Your task to perform on an android device: Set the phone to "Do not disturb". Image 0: 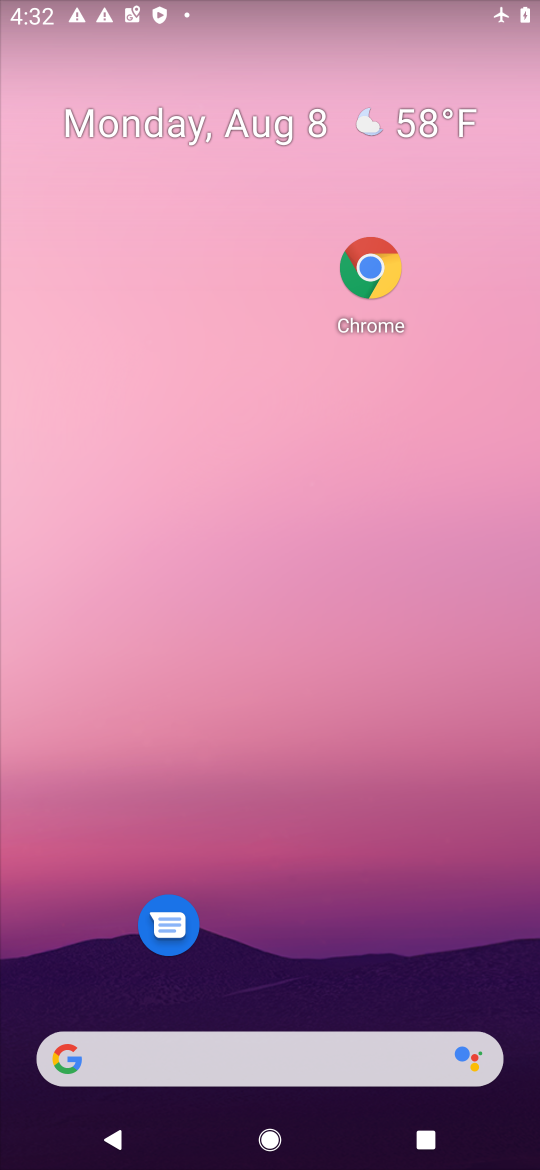
Step 0: drag from (260, 614) to (214, 109)
Your task to perform on an android device: Set the phone to "Do not disturb". Image 1: 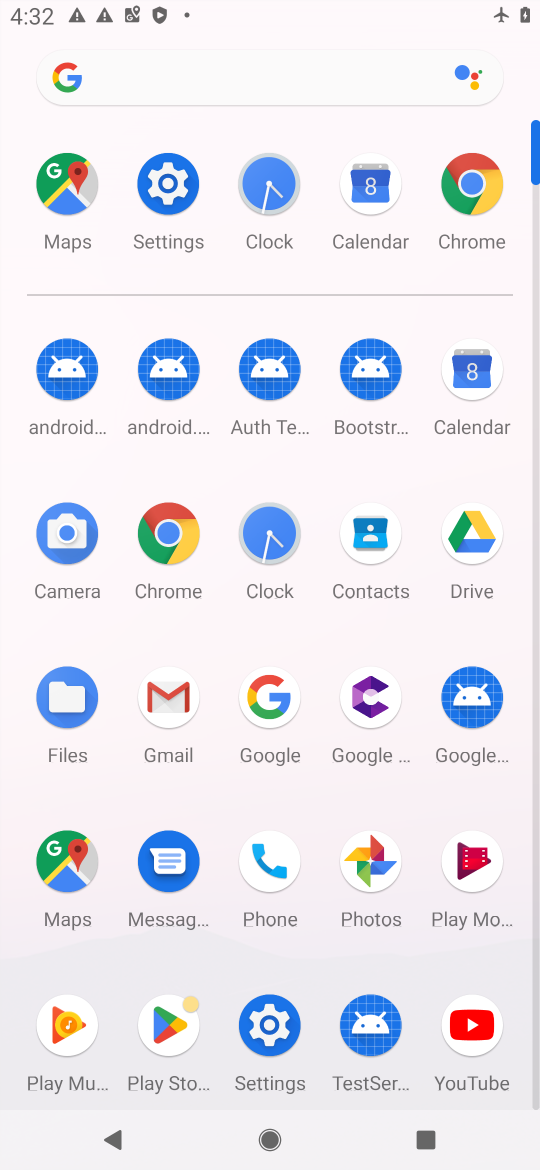
Step 1: click (177, 177)
Your task to perform on an android device: Set the phone to "Do not disturb". Image 2: 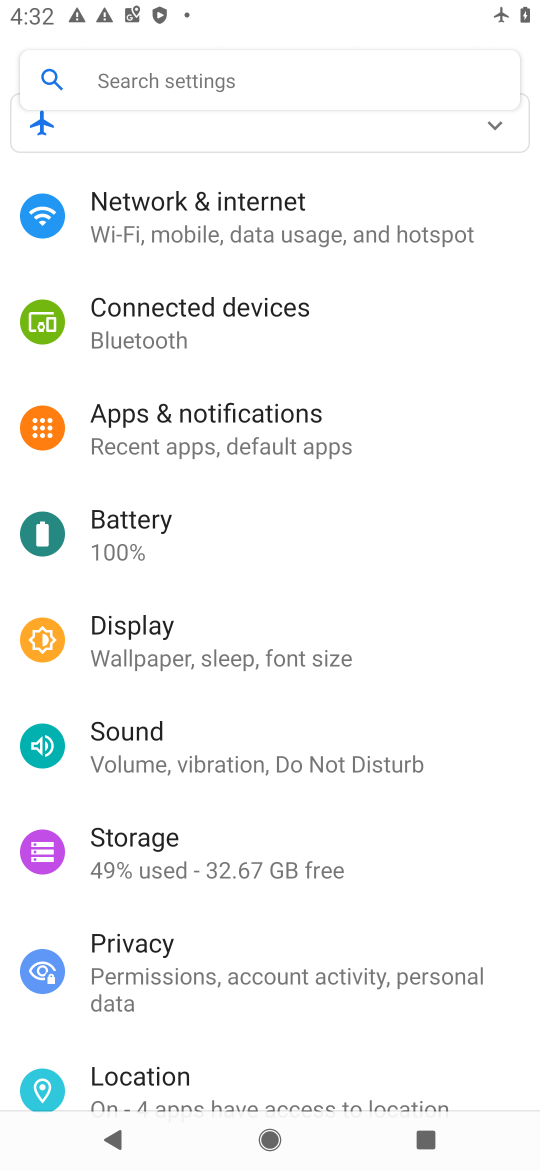
Step 2: drag from (218, 994) to (239, 660)
Your task to perform on an android device: Set the phone to "Do not disturb". Image 3: 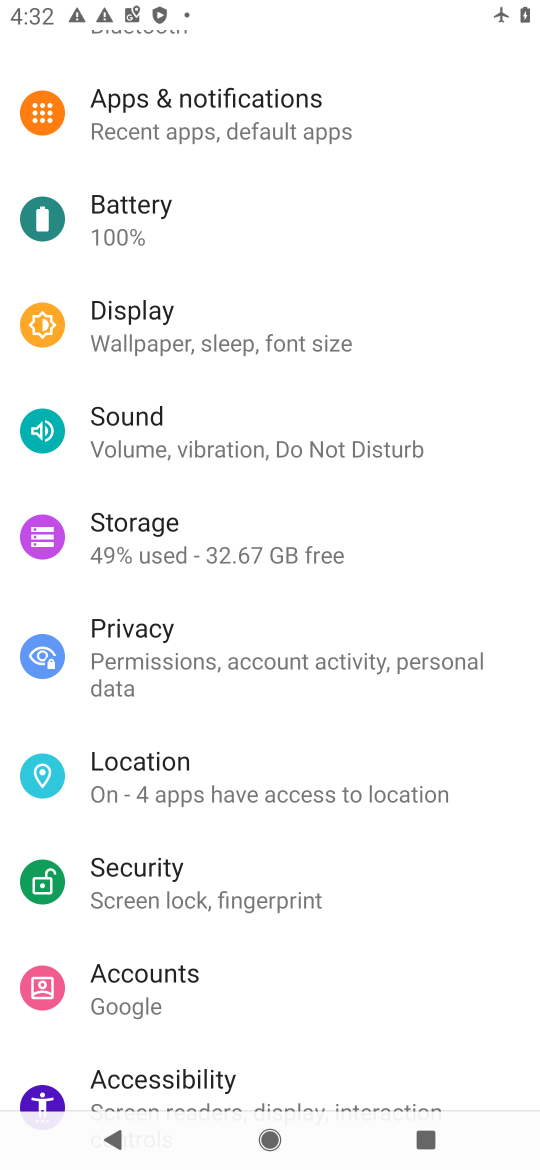
Step 3: click (232, 452)
Your task to perform on an android device: Set the phone to "Do not disturb". Image 4: 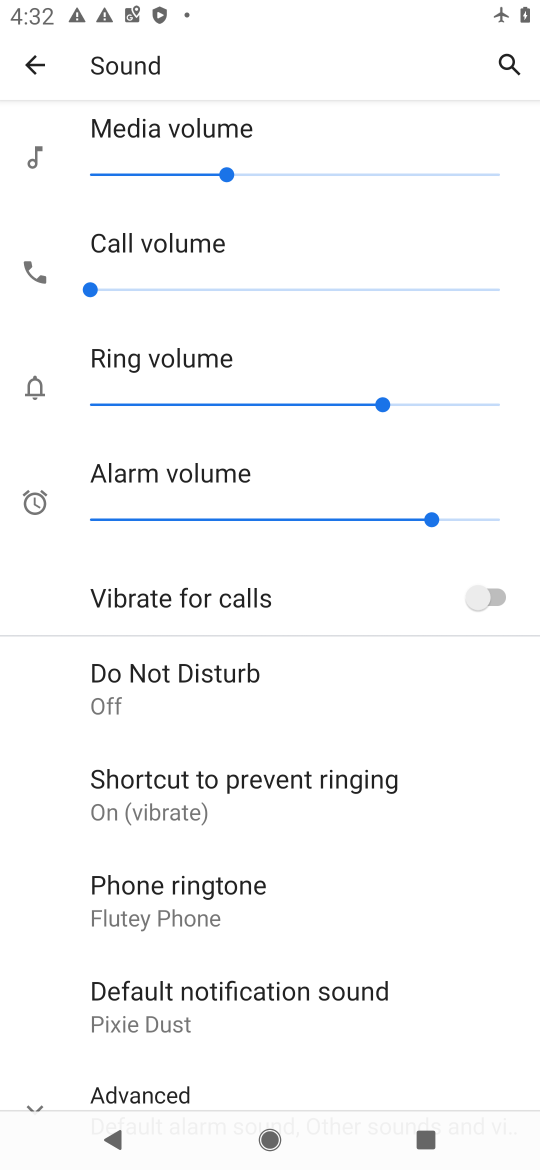
Step 4: click (204, 684)
Your task to perform on an android device: Set the phone to "Do not disturb". Image 5: 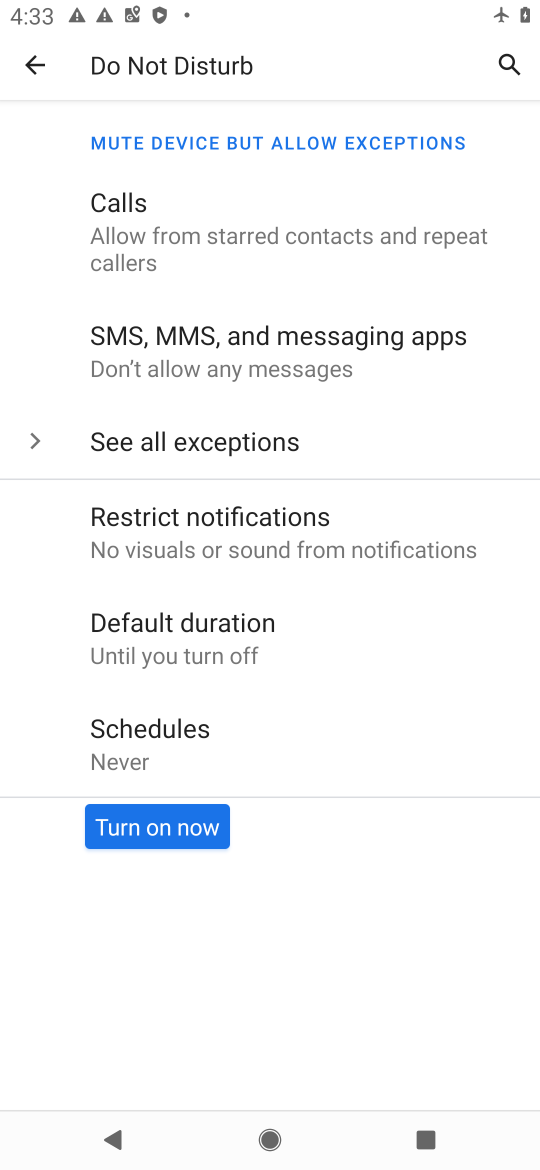
Step 5: click (180, 834)
Your task to perform on an android device: Set the phone to "Do not disturb". Image 6: 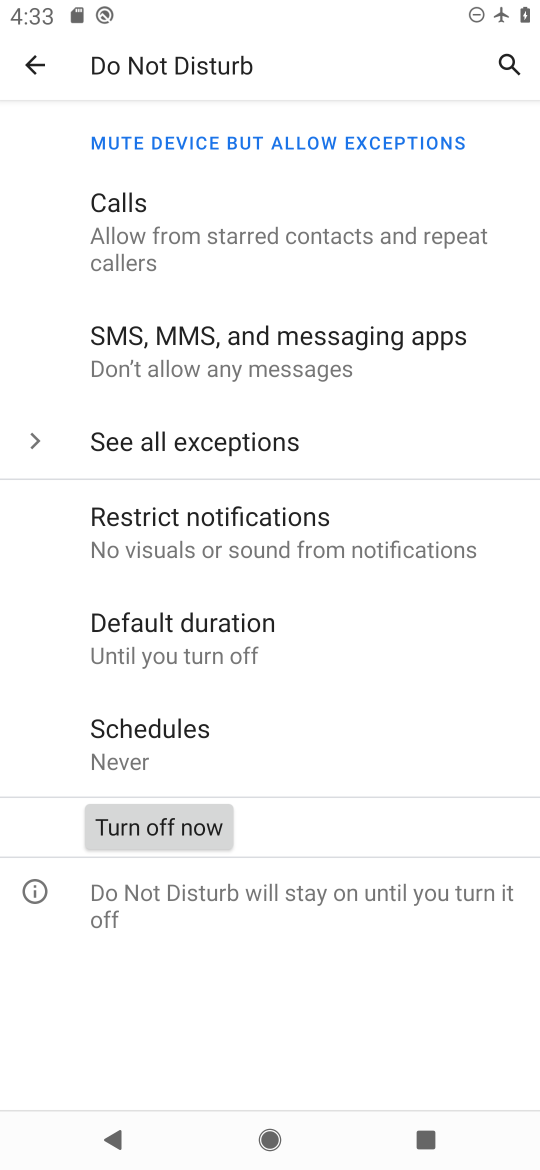
Step 6: task complete